Your task to perform on an android device: find snoozed emails in the gmail app Image 0: 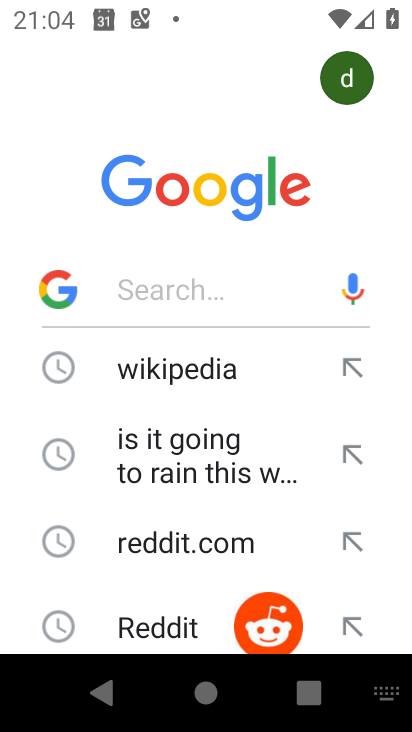
Step 0: press home button
Your task to perform on an android device: find snoozed emails in the gmail app Image 1: 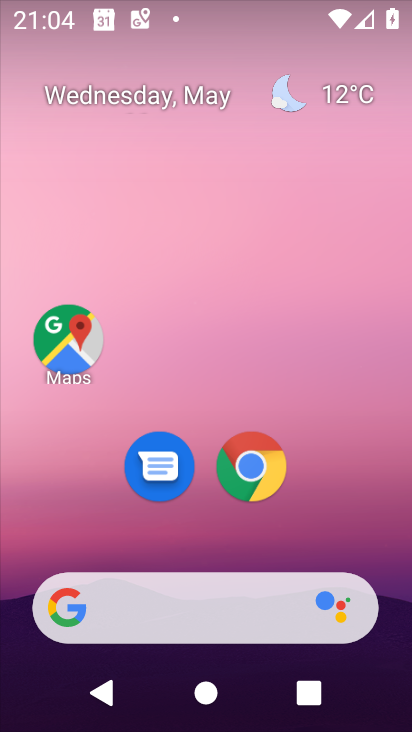
Step 1: click (212, 197)
Your task to perform on an android device: find snoozed emails in the gmail app Image 2: 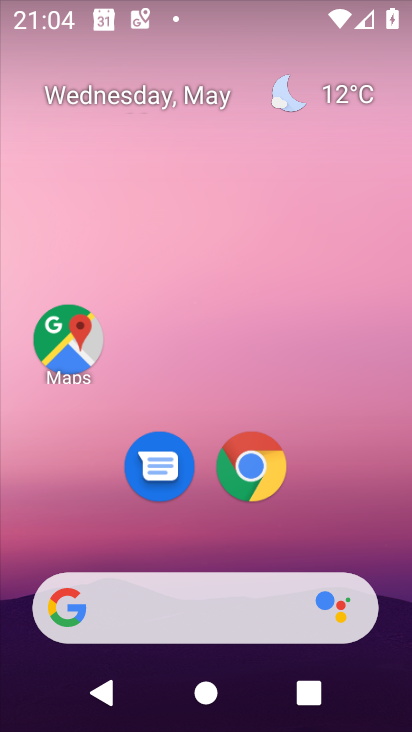
Step 2: drag from (211, 544) to (232, 93)
Your task to perform on an android device: find snoozed emails in the gmail app Image 3: 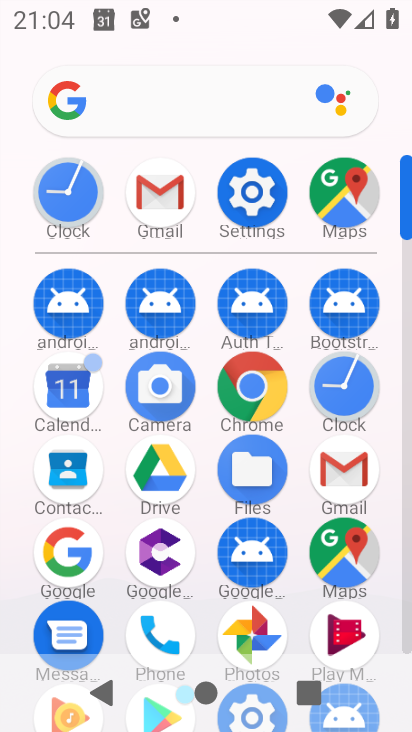
Step 3: click (342, 465)
Your task to perform on an android device: find snoozed emails in the gmail app Image 4: 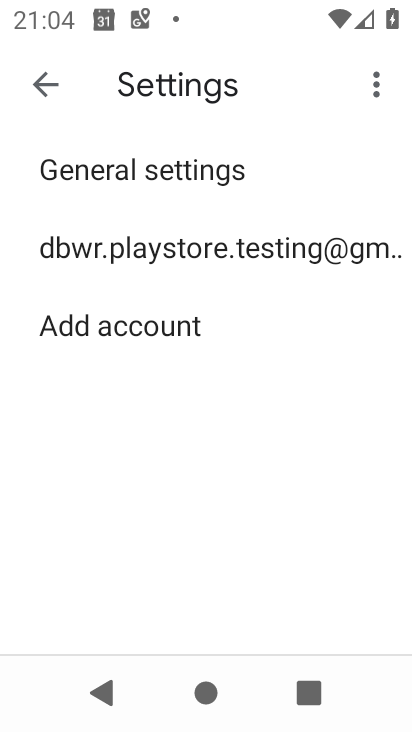
Step 4: click (54, 86)
Your task to perform on an android device: find snoozed emails in the gmail app Image 5: 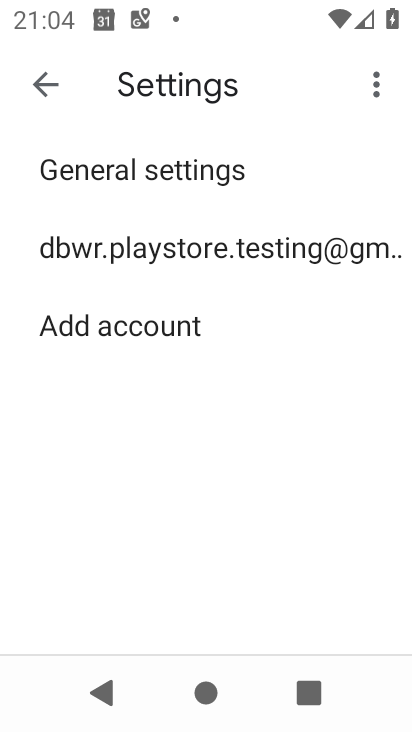
Step 5: click (48, 88)
Your task to perform on an android device: find snoozed emails in the gmail app Image 6: 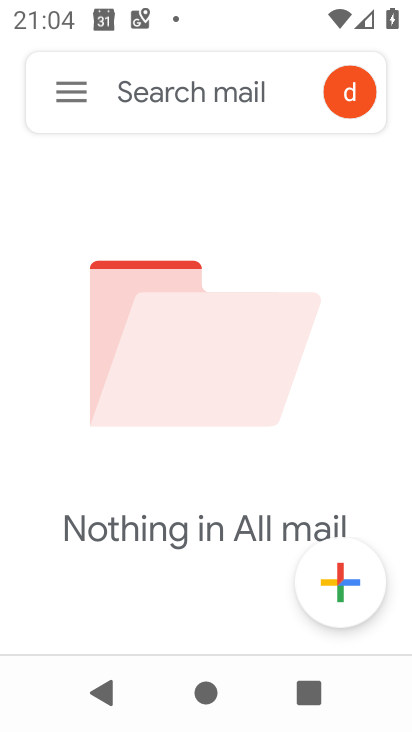
Step 6: click (66, 90)
Your task to perform on an android device: find snoozed emails in the gmail app Image 7: 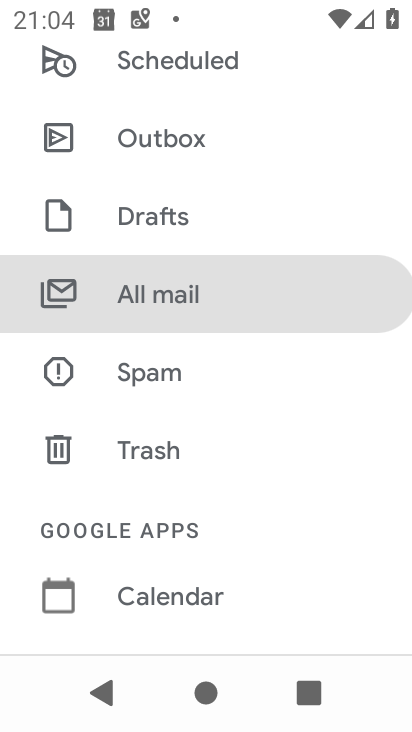
Step 7: drag from (167, 109) to (157, 519)
Your task to perform on an android device: find snoozed emails in the gmail app Image 8: 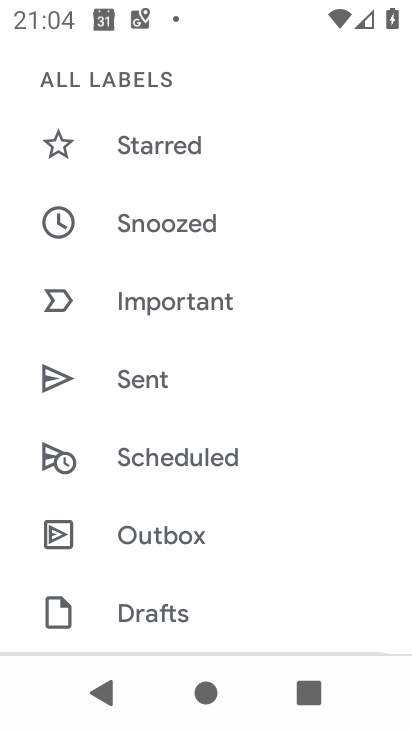
Step 8: click (192, 221)
Your task to perform on an android device: find snoozed emails in the gmail app Image 9: 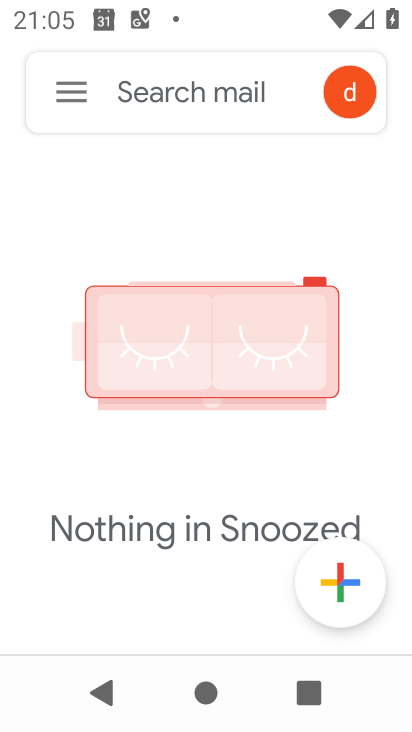
Step 9: task complete